Your task to perform on an android device: Search for logitech g pro on target.com, select the first entry, add it to the cart, then select checkout. Image 0: 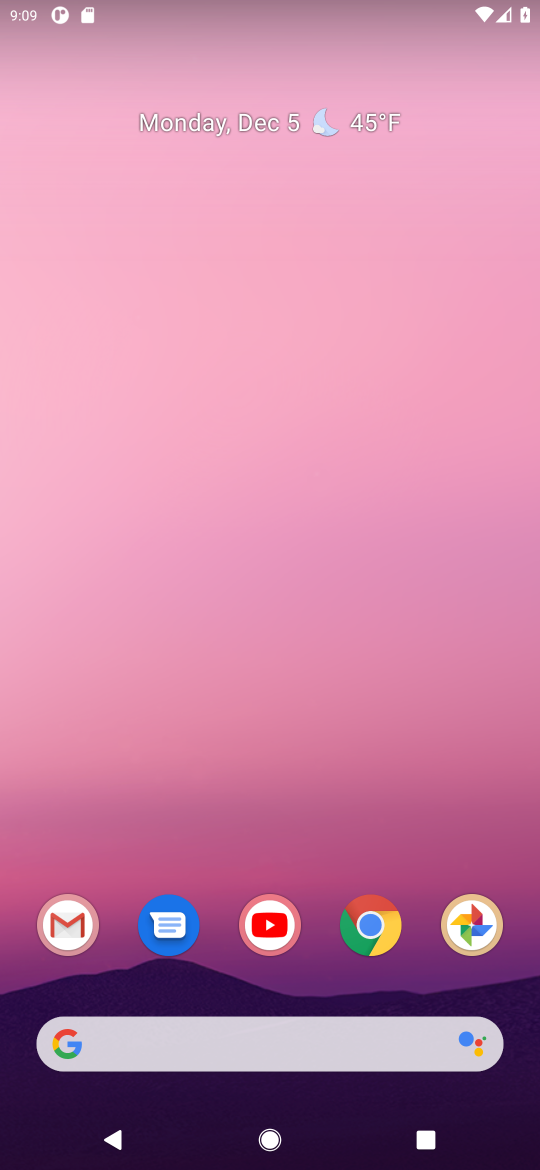
Step 0: click (365, 928)
Your task to perform on an android device: Search for logitech g pro on target.com, select the first entry, add it to the cart, then select checkout. Image 1: 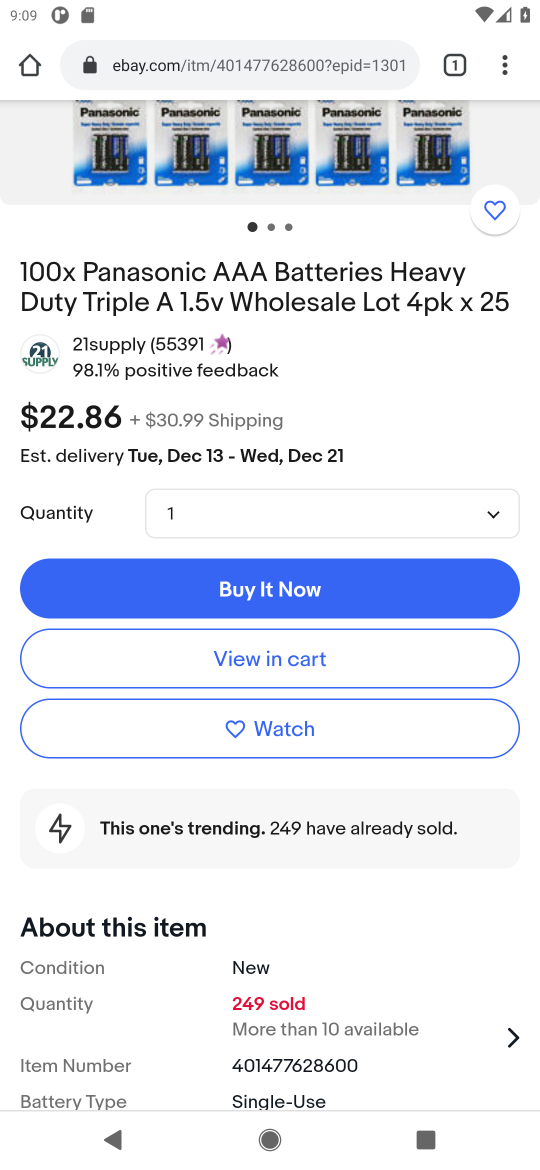
Step 1: click (237, 67)
Your task to perform on an android device: Search for logitech g pro on target.com, select the first entry, add it to the cart, then select checkout. Image 2: 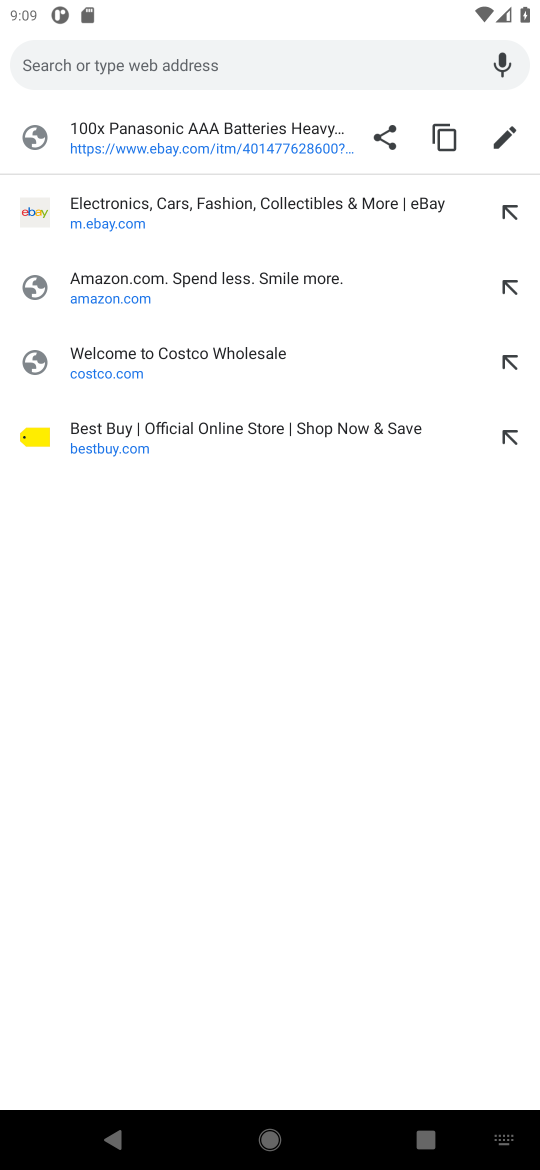
Step 2: type "target.com"
Your task to perform on an android device: Search for logitech g pro on target.com, select the first entry, add it to the cart, then select checkout. Image 3: 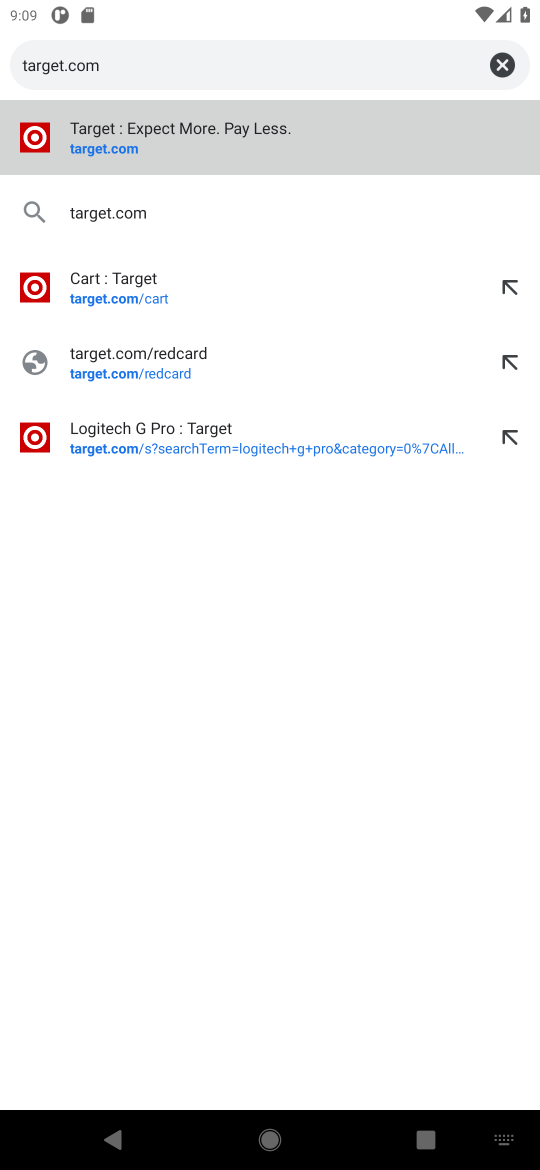
Step 3: click (202, 135)
Your task to perform on an android device: Search for logitech g pro on target.com, select the first entry, add it to the cart, then select checkout. Image 4: 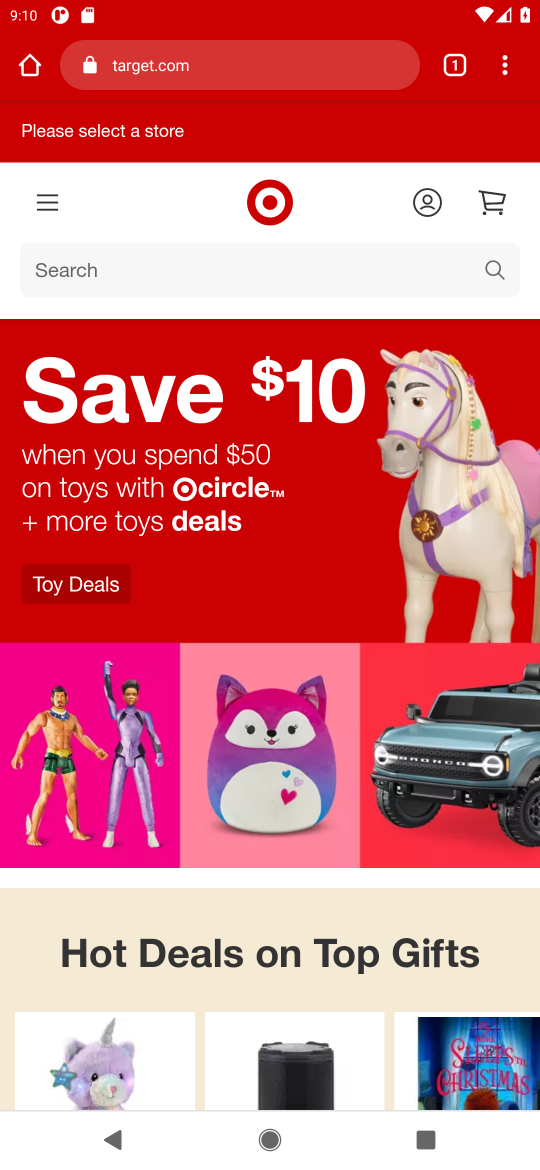
Step 4: click (72, 264)
Your task to perform on an android device: Search for logitech g pro on target.com, select the first entry, add it to the cart, then select checkout. Image 5: 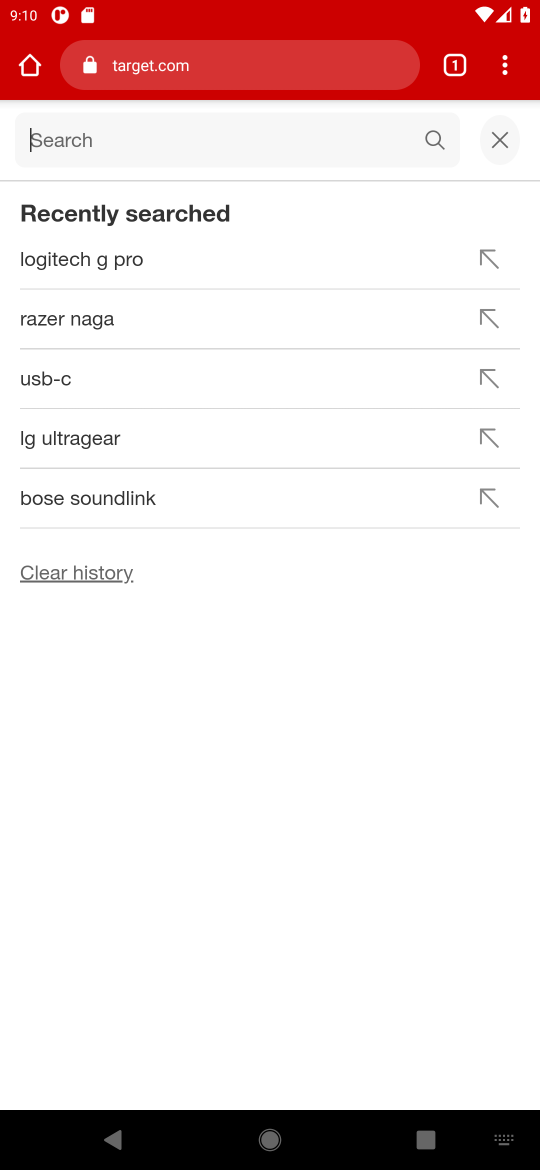
Step 5: type "logitech g pro"
Your task to perform on an android device: Search for logitech g pro on target.com, select the first entry, add it to the cart, then select checkout. Image 6: 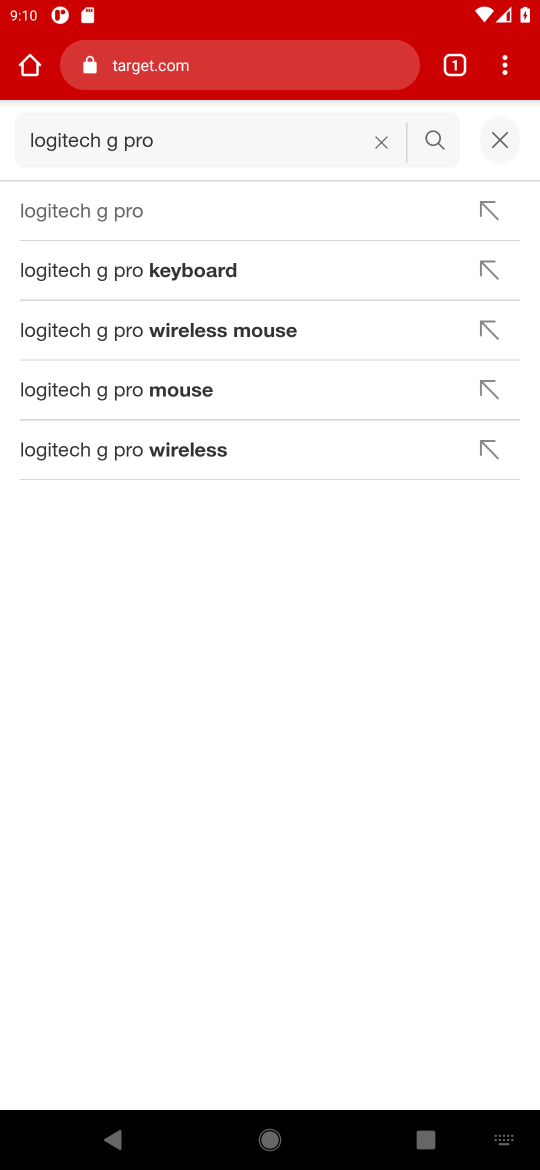
Step 6: click (69, 218)
Your task to perform on an android device: Search for logitech g pro on target.com, select the first entry, add it to the cart, then select checkout. Image 7: 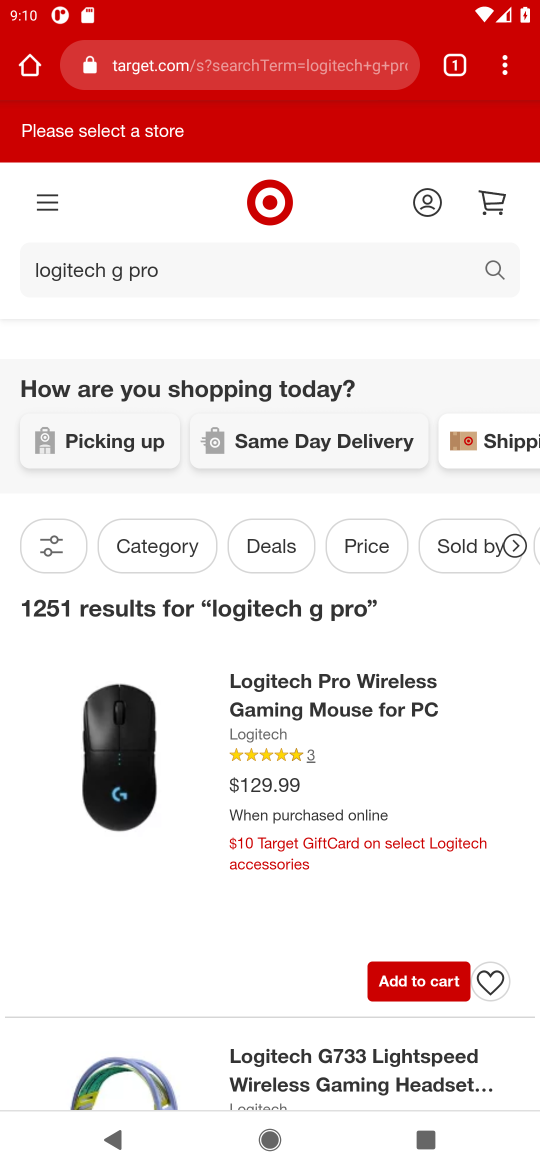
Step 7: task complete